Your task to perform on an android device: Add logitech g pro to the cart on ebay.com, then select checkout. Image 0: 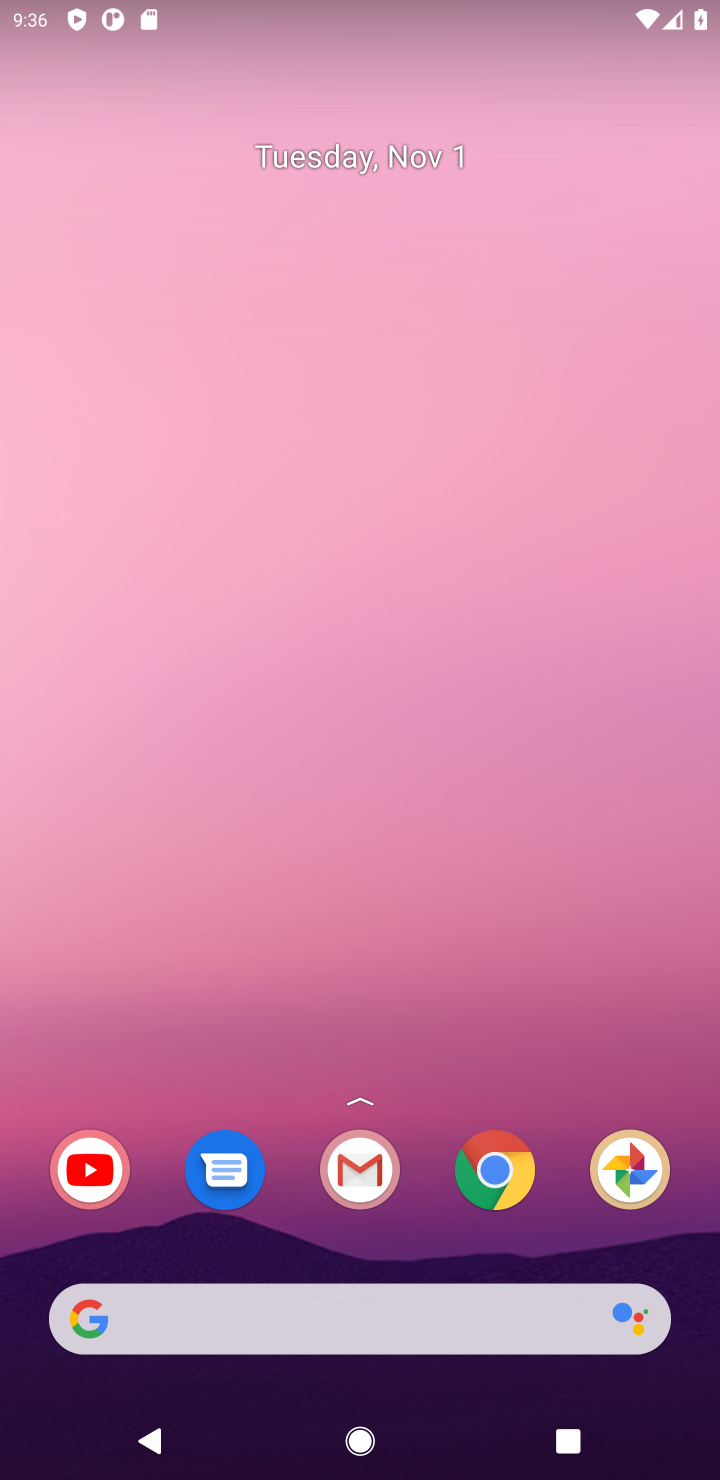
Step 0: press home button
Your task to perform on an android device: Add logitech g pro to the cart on ebay.com, then select checkout. Image 1: 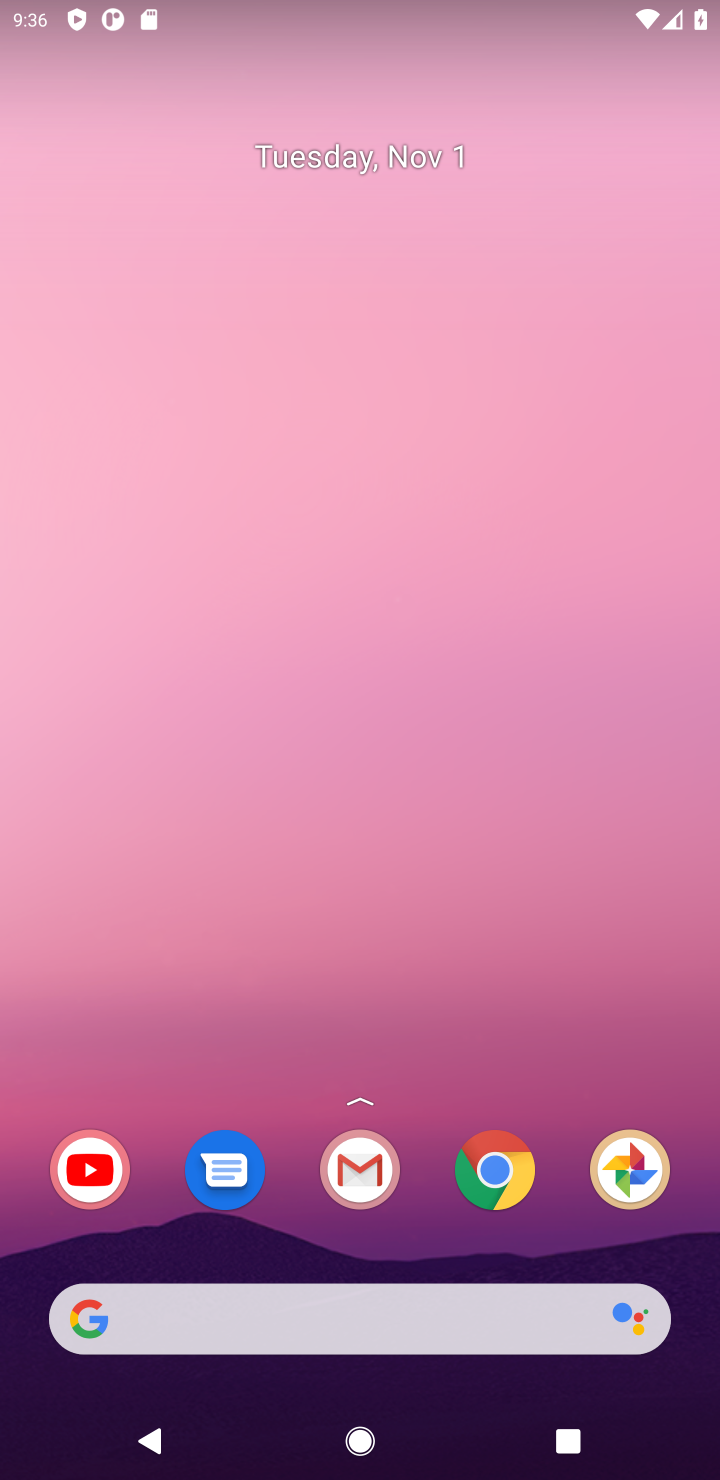
Step 1: drag from (515, 349) to (513, 0)
Your task to perform on an android device: Add logitech g pro to the cart on ebay.com, then select checkout. Image 2: 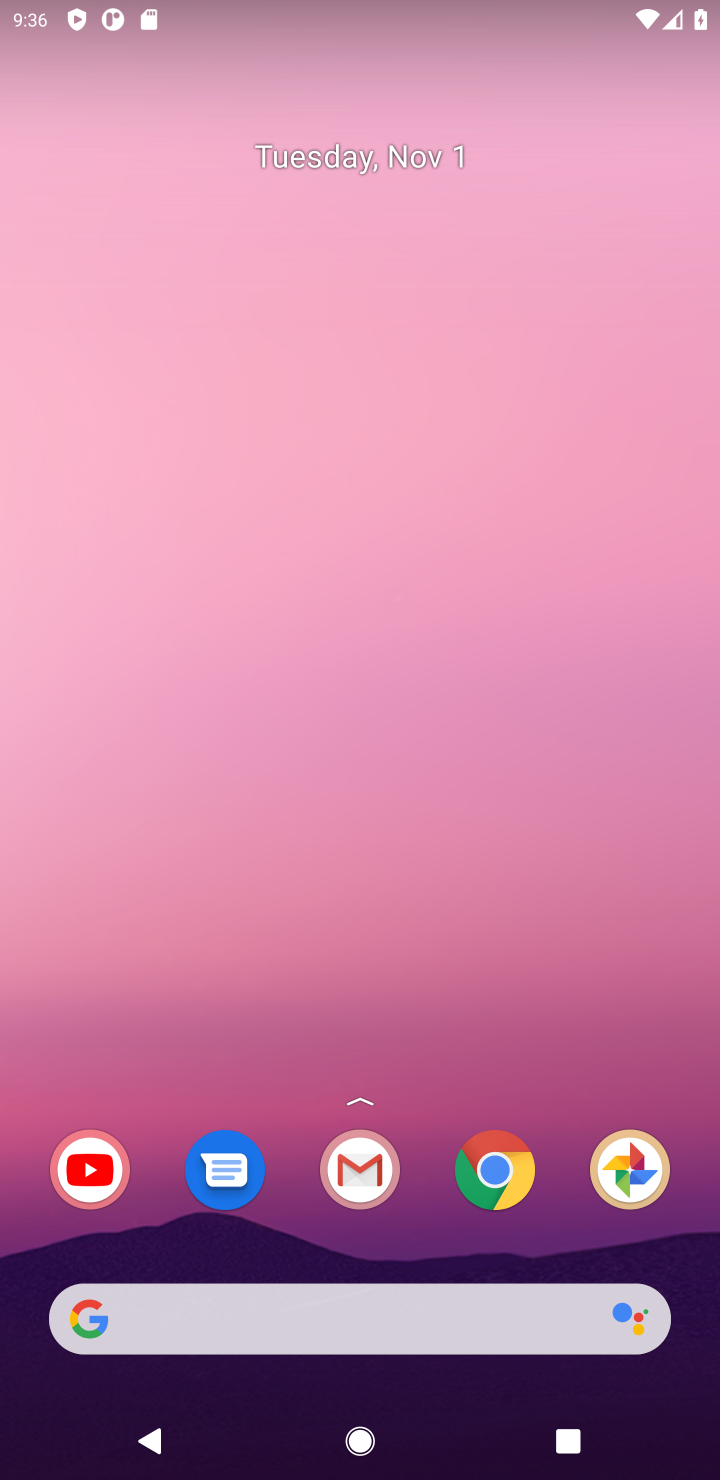
Step 2: drag from (447, 1085) to (481, 45)
Your task to perform on an android device: Add logitech g pro to the cart on ebay.com, then select checkout. Image 3: 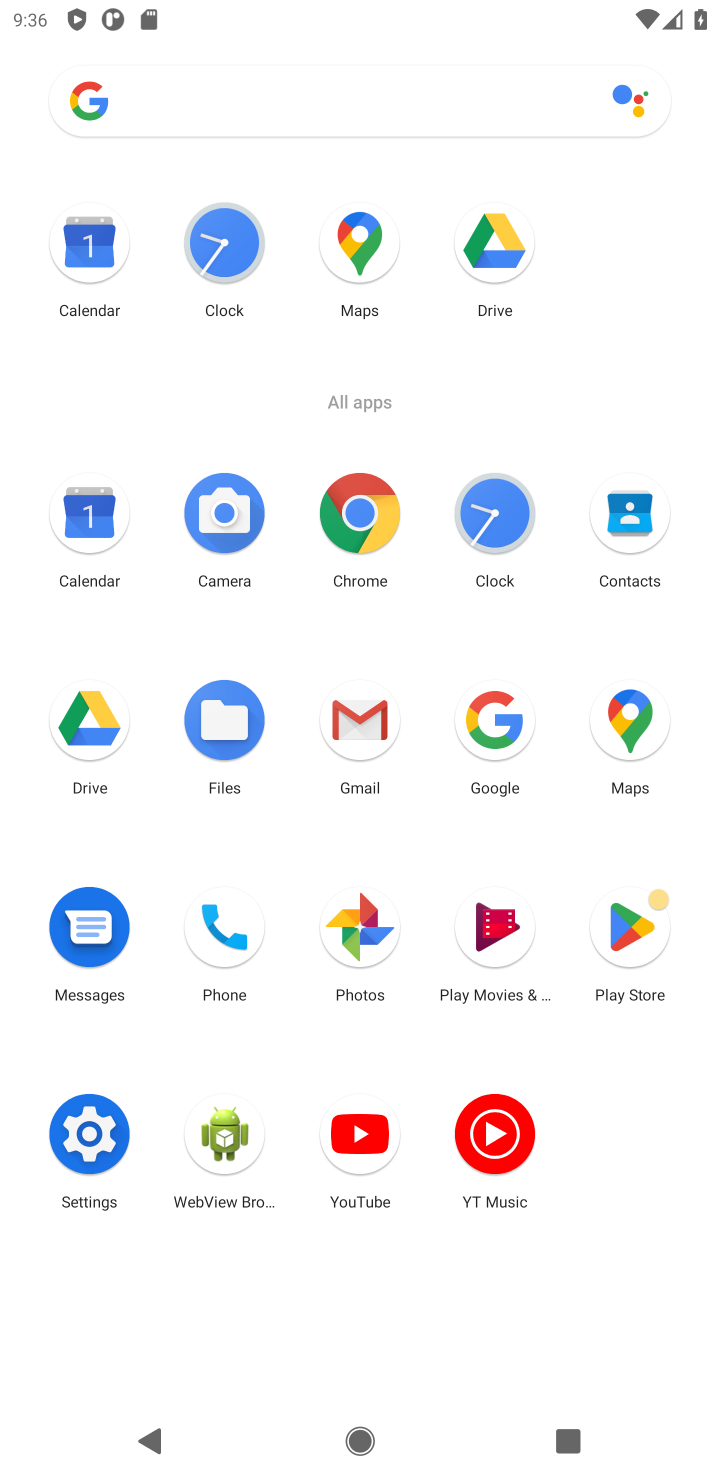
Step 3: click (351, 503)
Your task to perform on an android device: Add logitech g pro to the cart on ebay.com, then select checkout. Image 4: 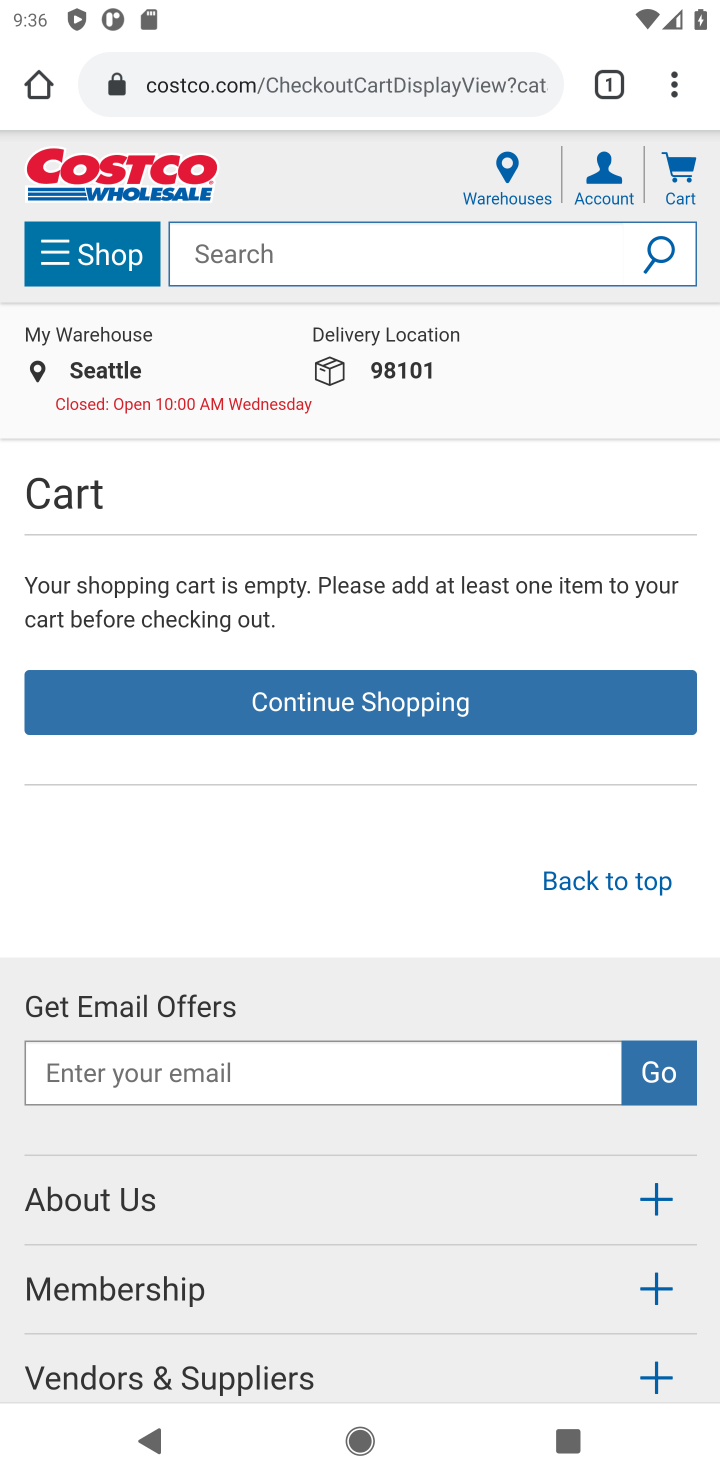
Step 4: click (250, 84)
Your task to perform on an android device: Add logitech g pro to the cart on ebay.com, then select checkout. Image 5: 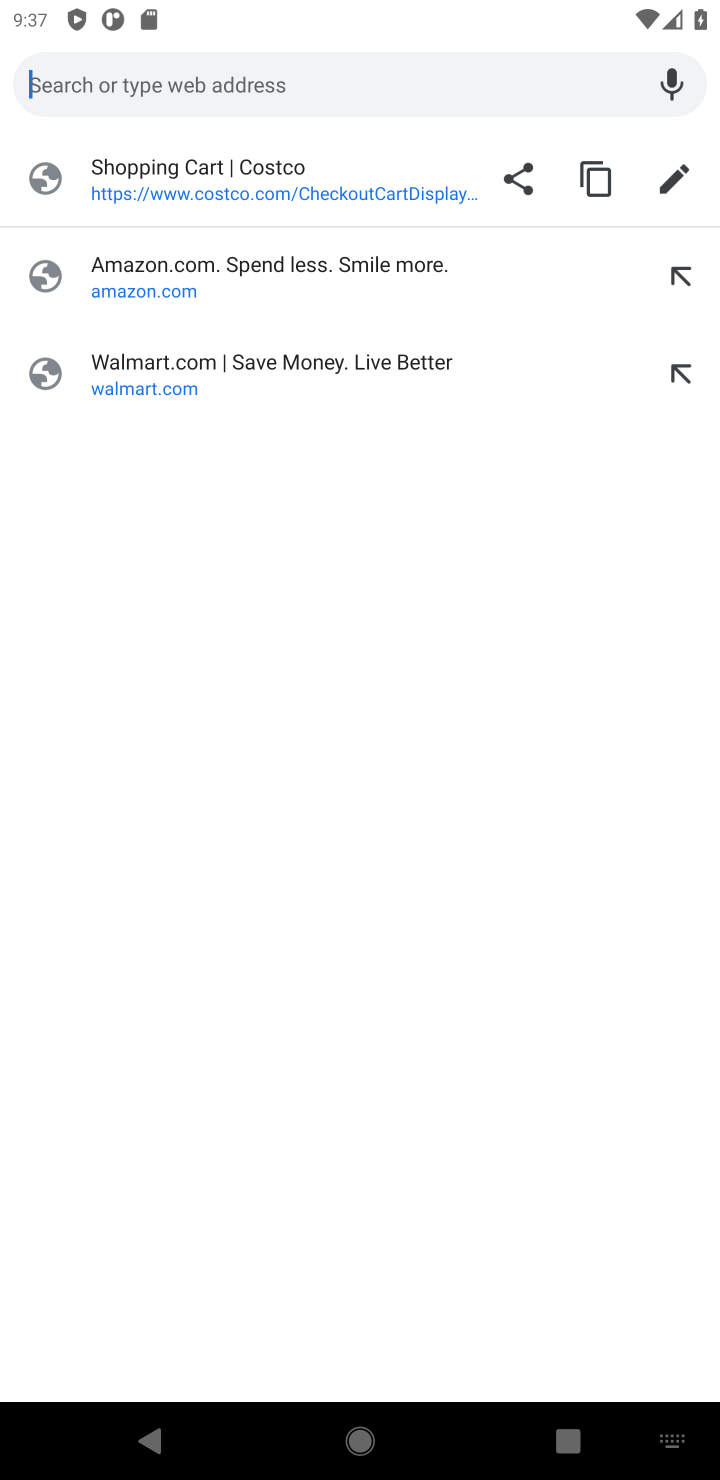
Step 5: type "ebay.com"
Your task to perform on an android device: Add logitech g pro to the cart on ebay.com, then select checkout. Image 6: 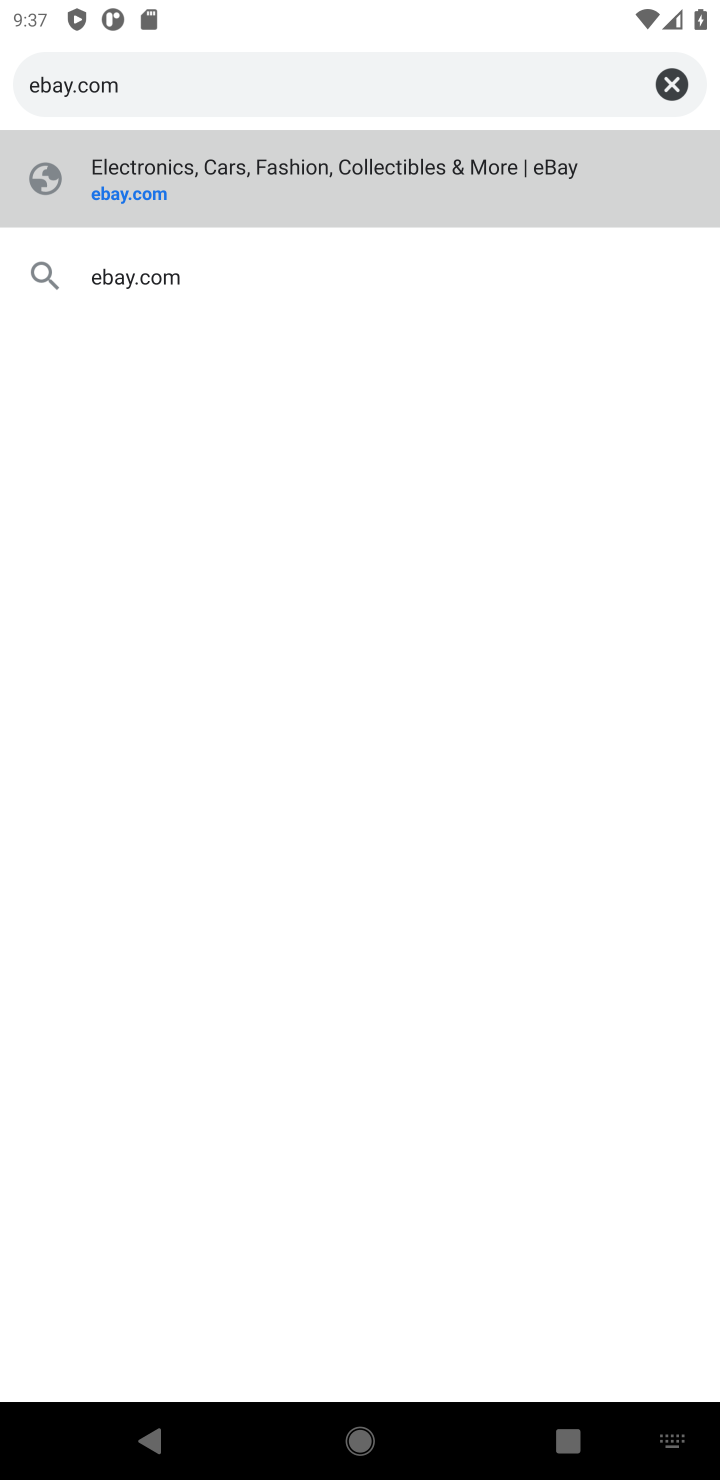
Step 6: type ""
Your task to perform on an android device: Add logitech g pro to the cart on ebay.com, then select checkout. Image 7: 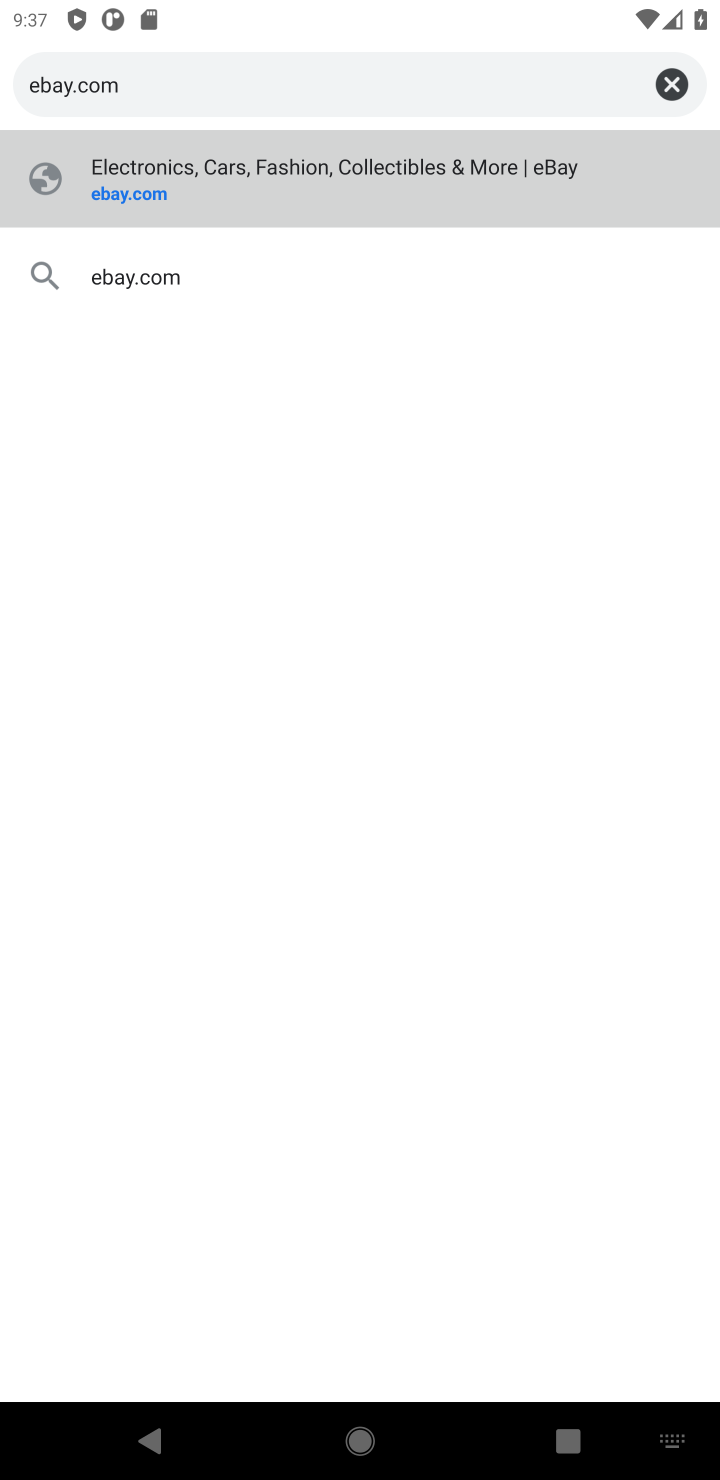
Step 7: click (227, 203)
Your task to perform on an android device: Add logitech g pro to the cart on ebay.com, then select checkout. Image 8: 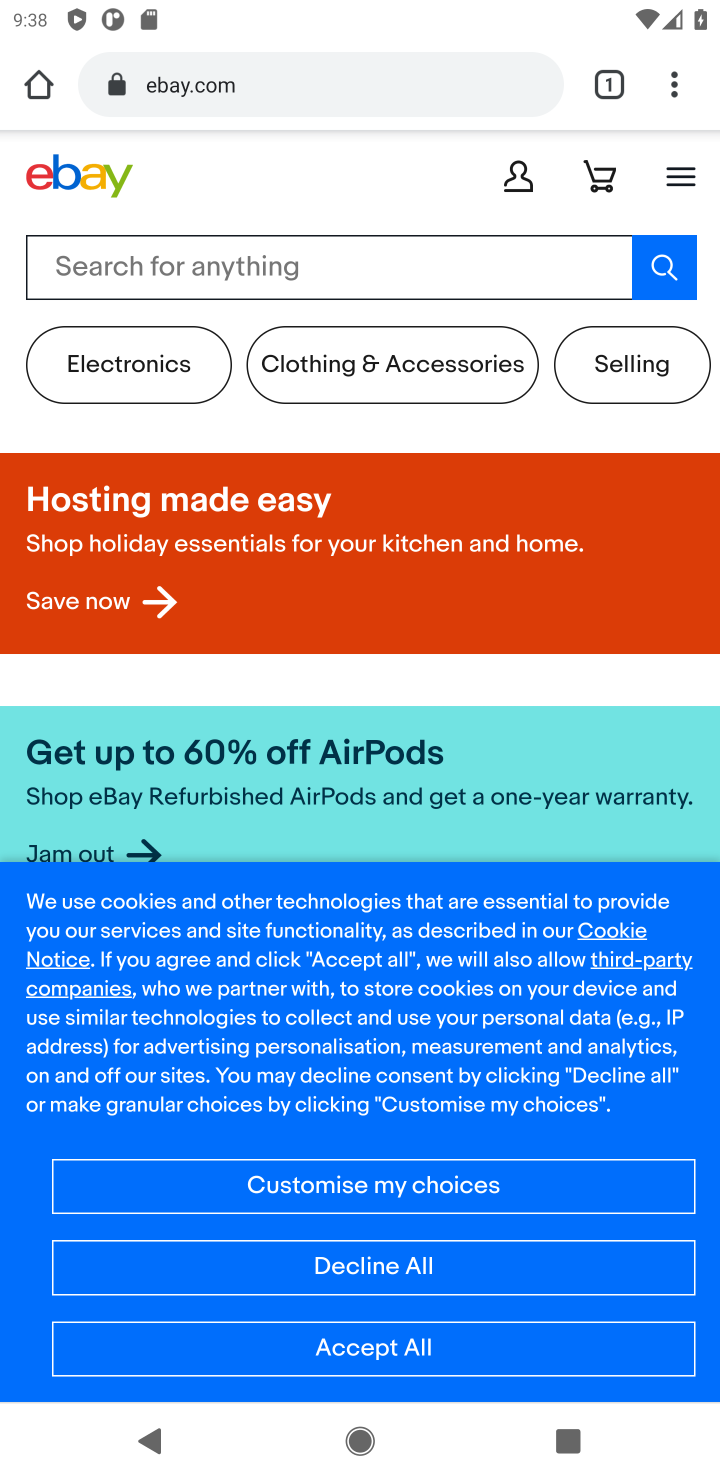
Step 8: click (373, 1347)
Your task to perform on an android device: Add logitech g pro to the cart on ebay.com, then select checkout. Image 9: 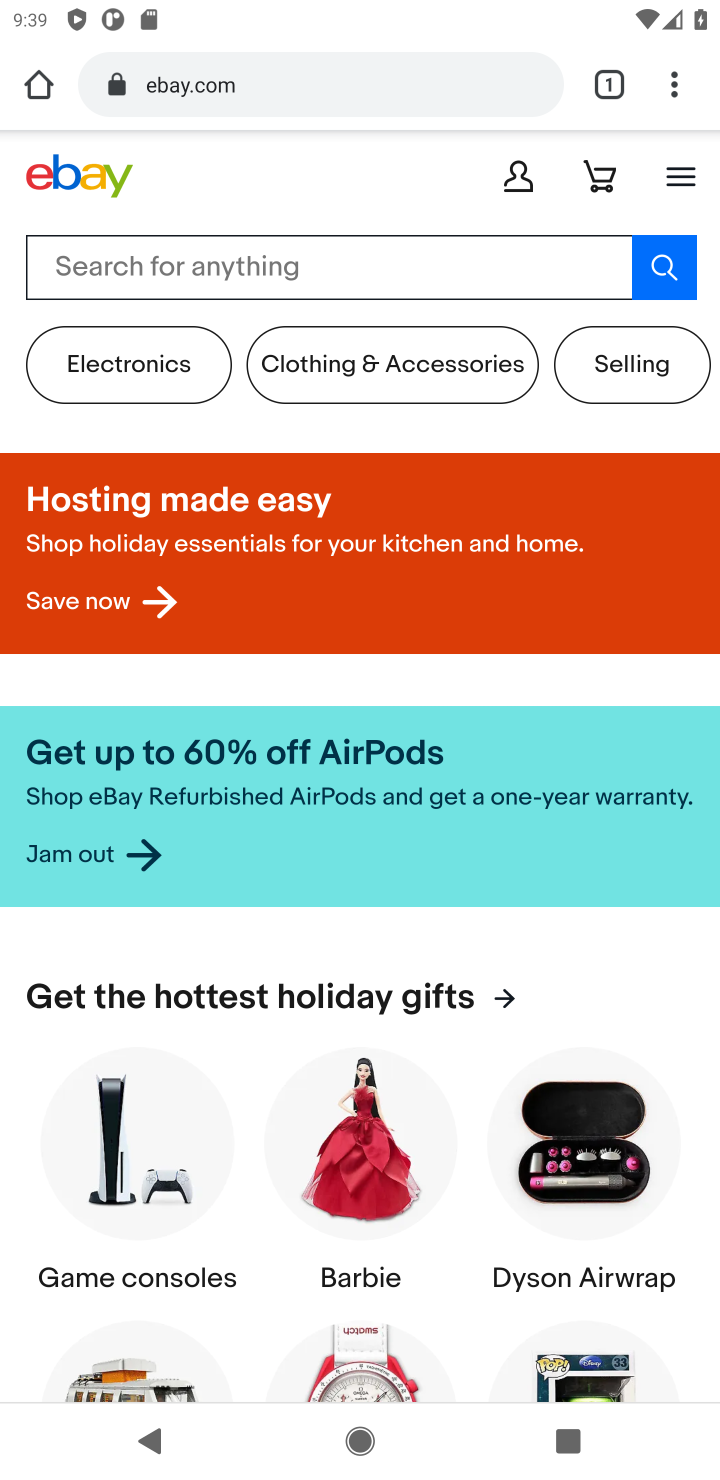
Step 9: click (271, 259)
Your task to perform on an android device: Add logitech g pro to the cart on ebay.com, then select checkout. Image 10: 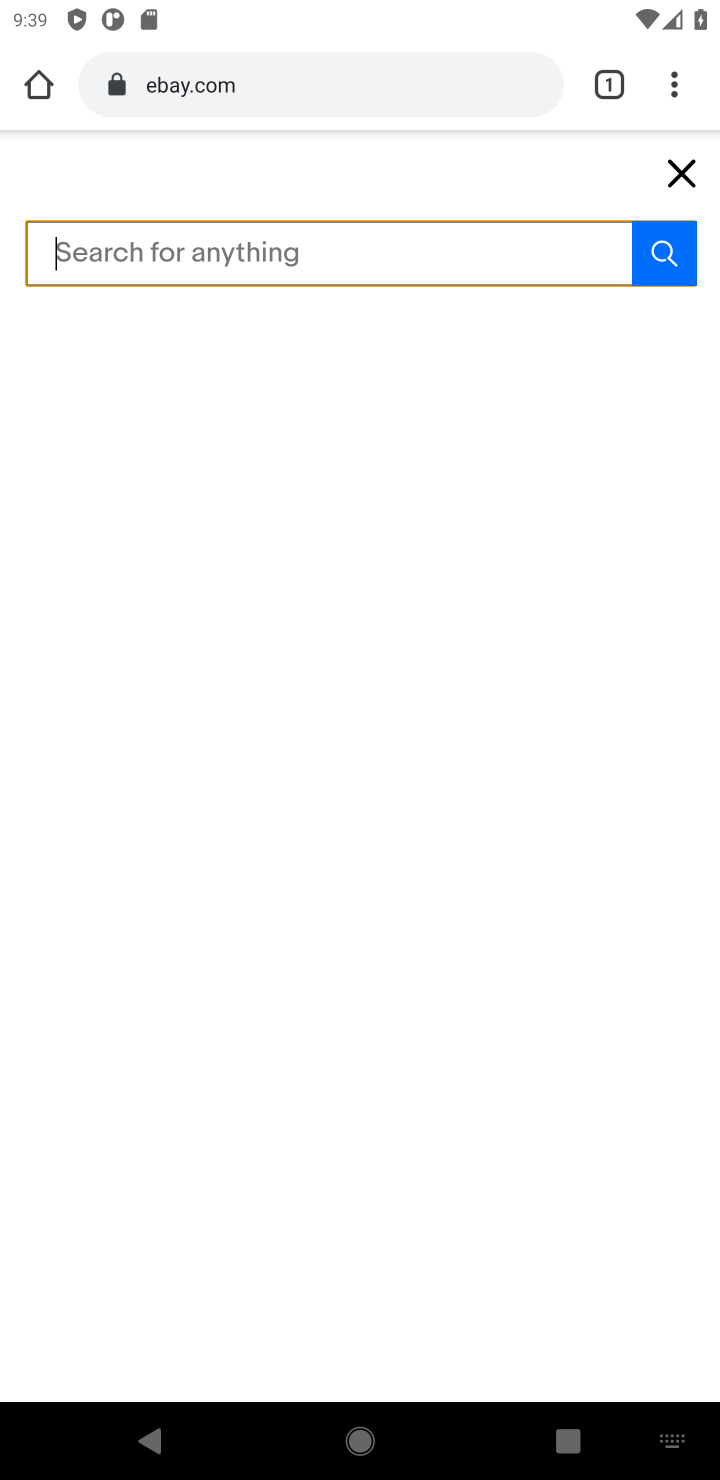
Step 10: type "logitech g pro"
Your task to perform on an android device: Add logitech g pro to the cart on ebay.com, then select checkout. Image 11: 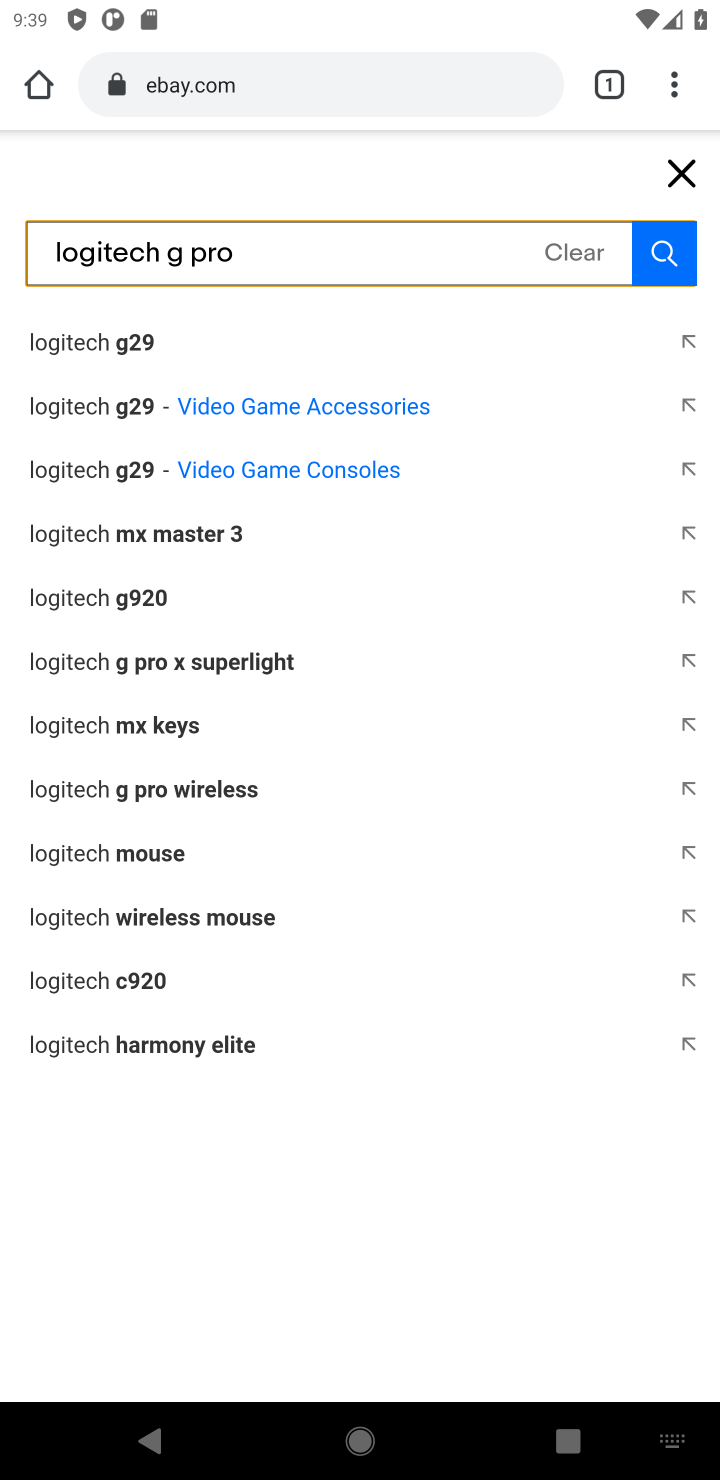
Step 11: click (228, 784)
Your task to perform on an android device: Add logitech g pro to the cart on ebay.com, then select checkout. Image 12: 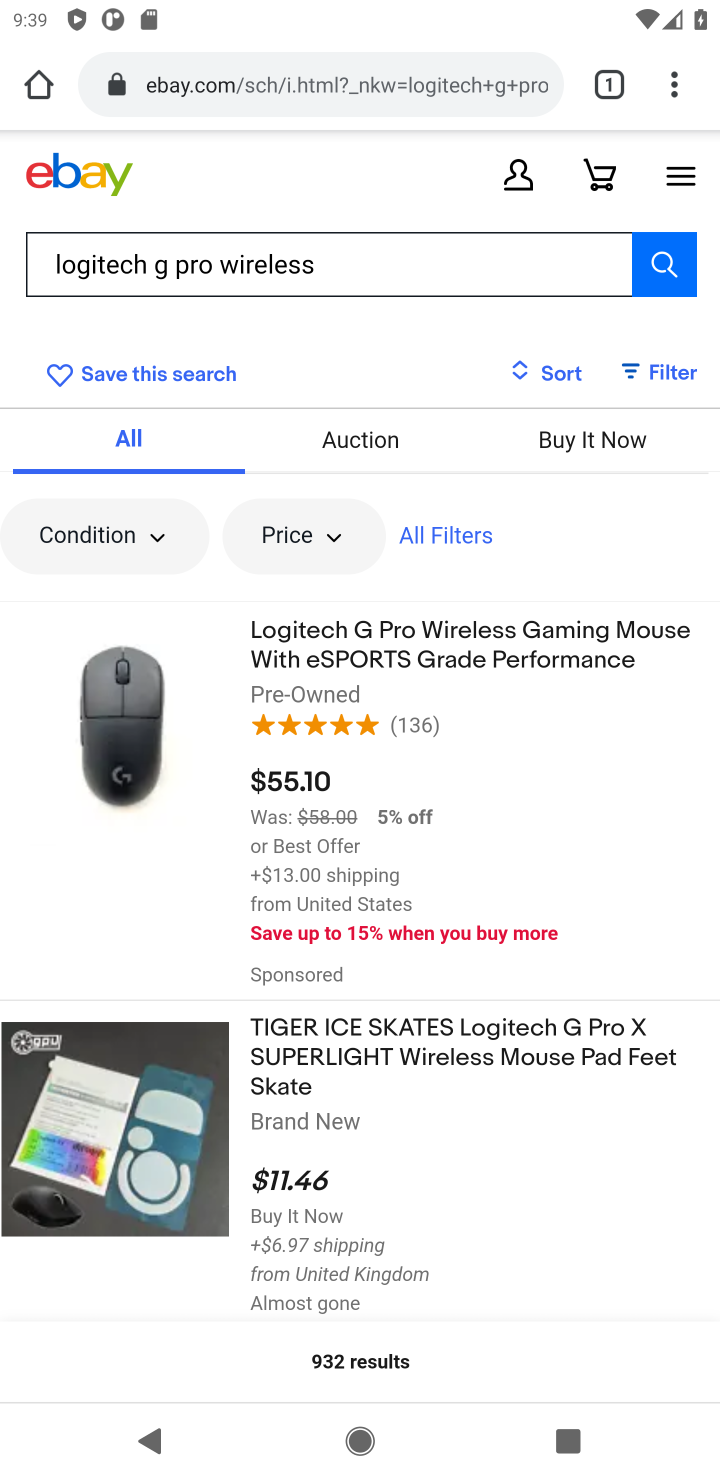
Step 12: click (342, 652)
Your task to perform on an android device: Add logitech g pro to the cart on ebay.com, then select checkout. Image 13: 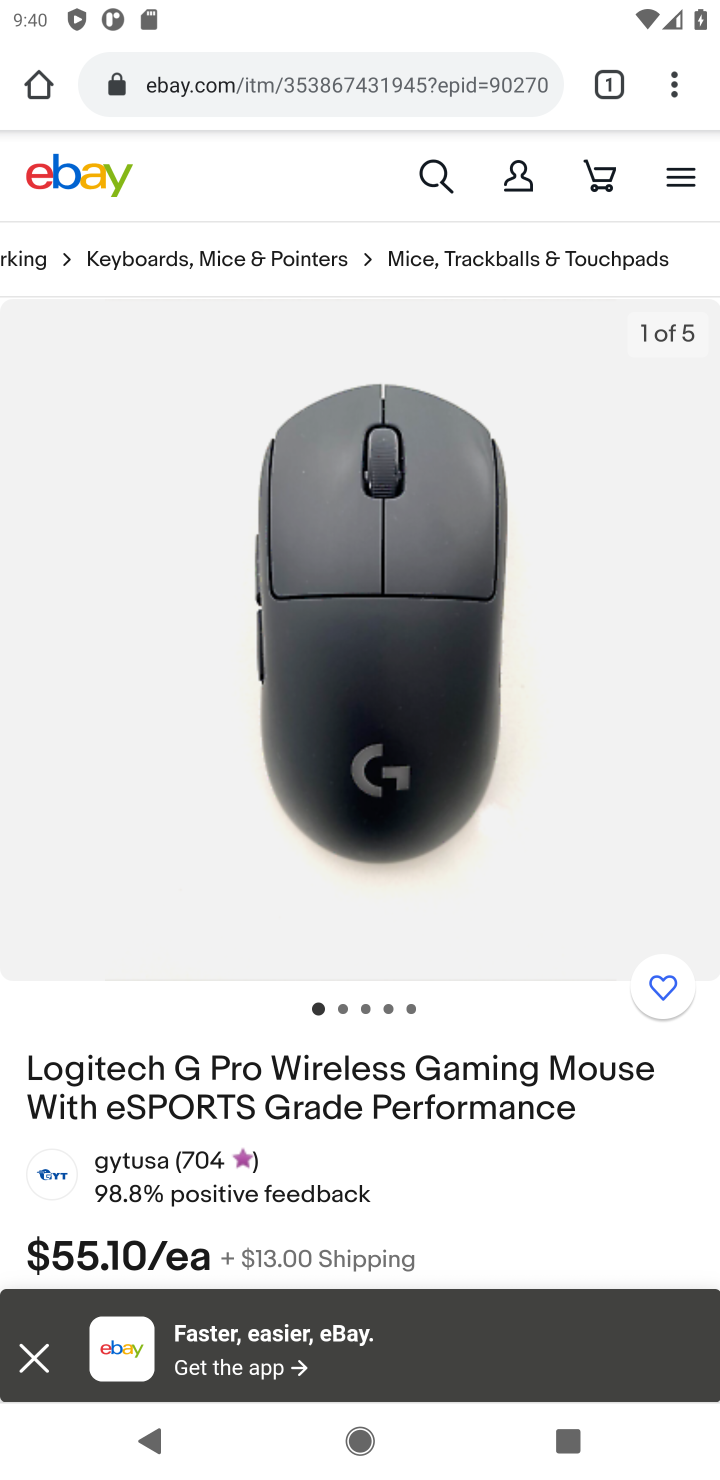
Step 13: drag from (458, 1192) to (529, 160)
Your task to perform on an android device: Add logitech g pro to the cart on ebay.com, then select checkout. Image 14: 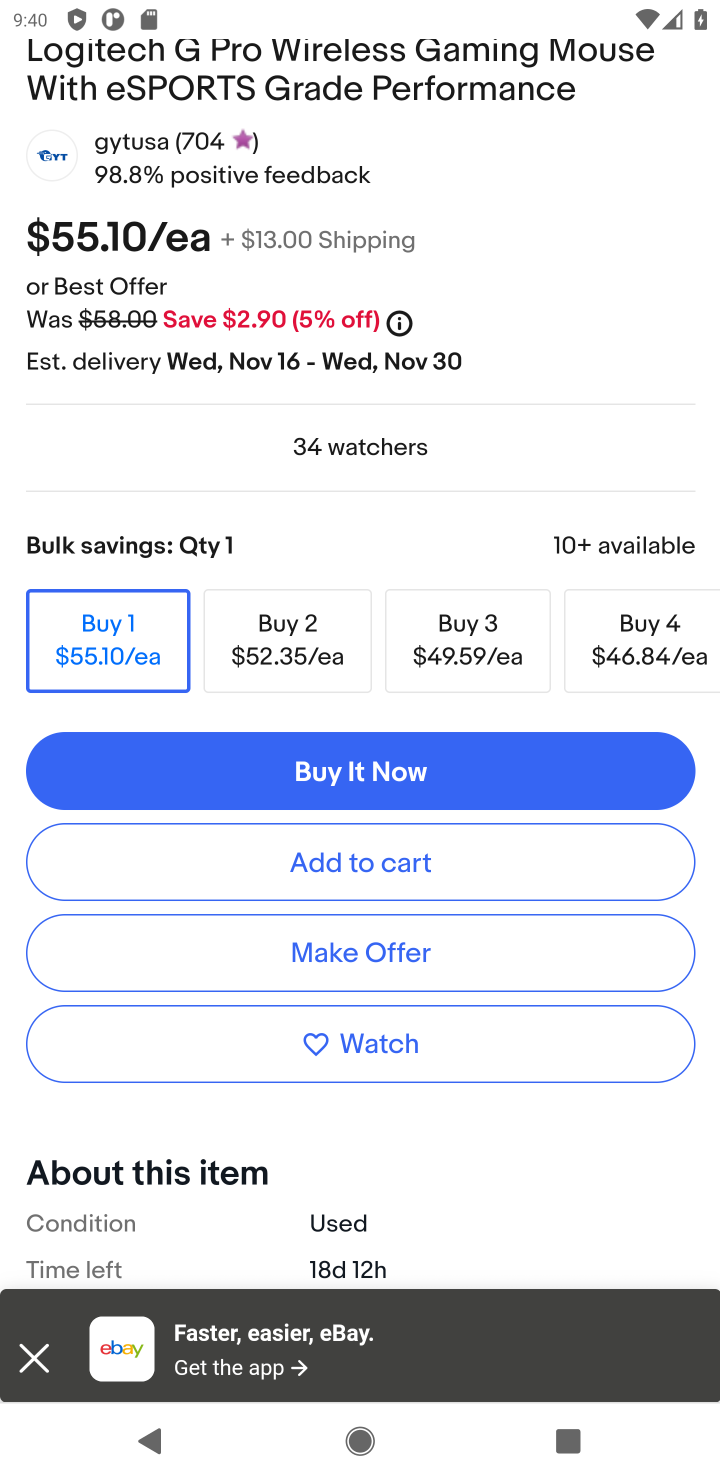
Step 14: click (354, 854)
Your task to perform on an android device: Add logitech g pro to the cart on ebay.com, then select checkout. Image 15: 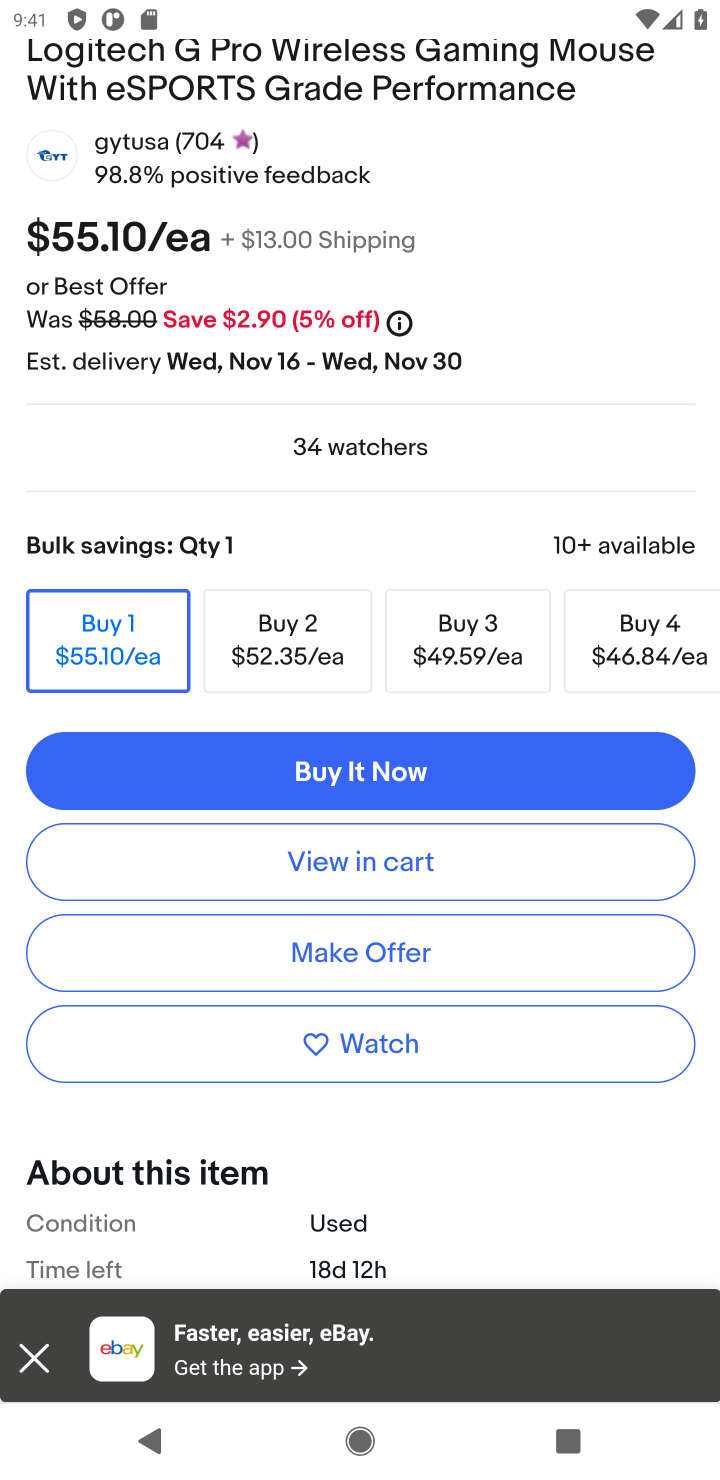
Step 15: click (357, 852)
Your task to perform on an android device: Add logitech g pro to the cart on ebay.com, then select checkout. Image 16: 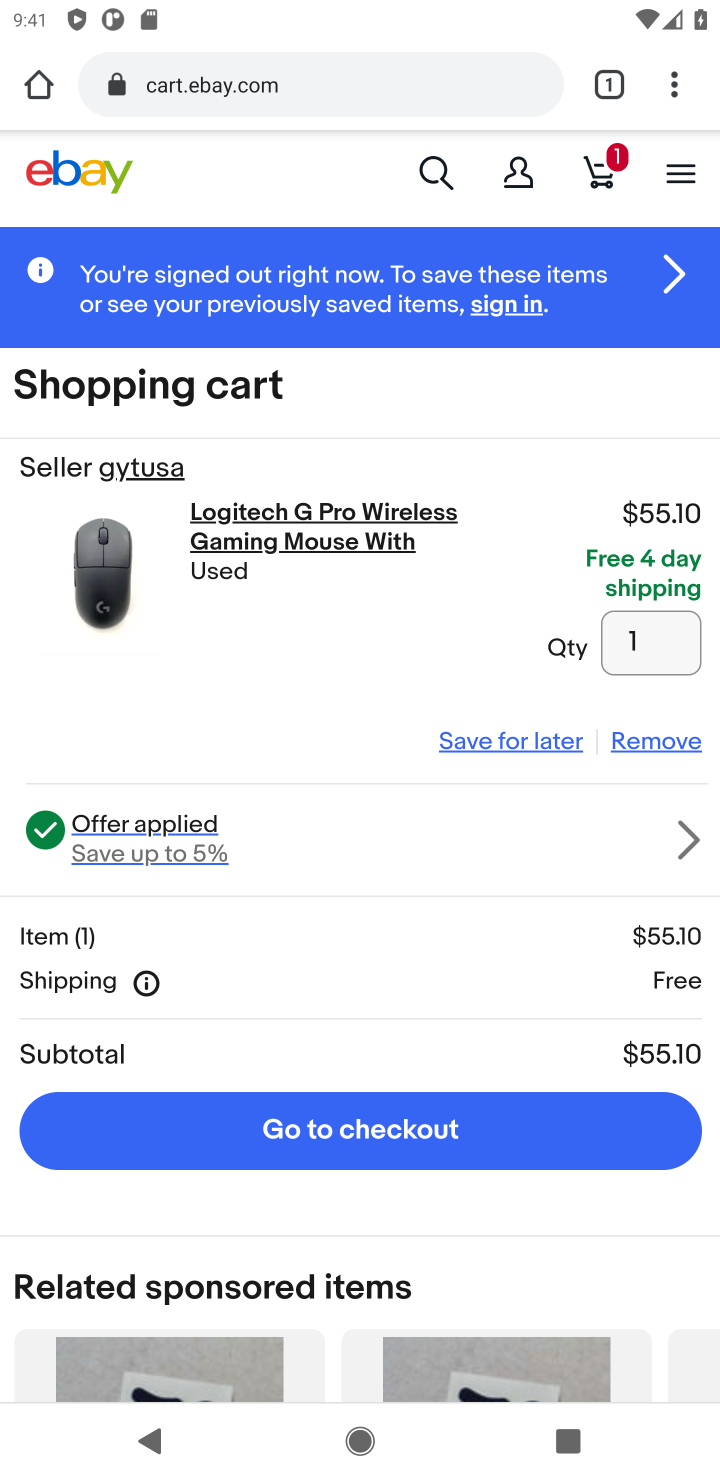
Step 16: click (316, 1111)
Your task to perform on an android device: Add logitech g pro to the cart on ebay.com, then select checkout. Image 17: 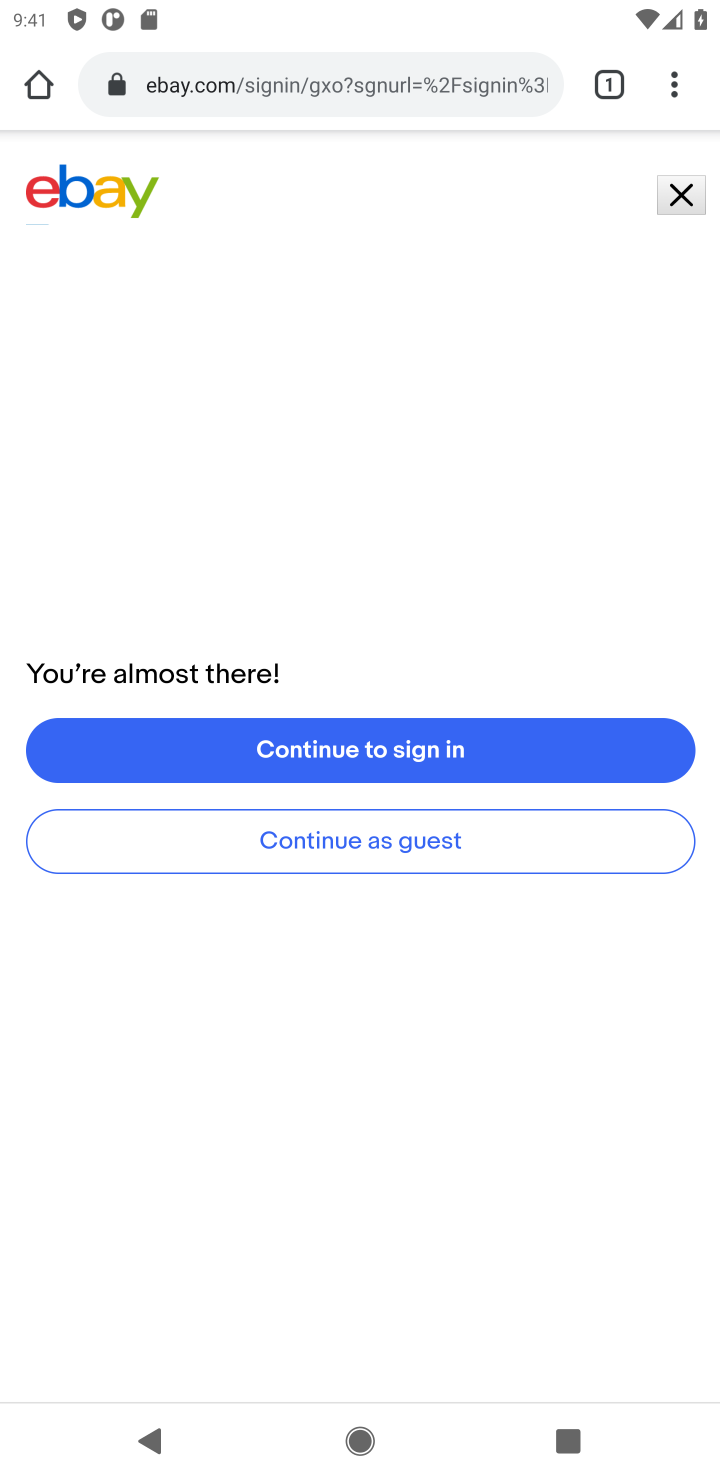
Step 17: task complete